Your task to perform on an android device: open a bookmark in the chrome app Image 0: 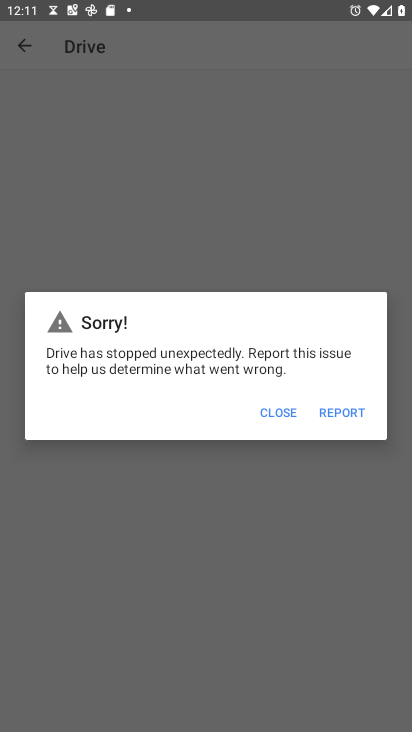
Step 0: press home button
Your task to perform on an android device: open a bookmark in the chrome app Image 1: 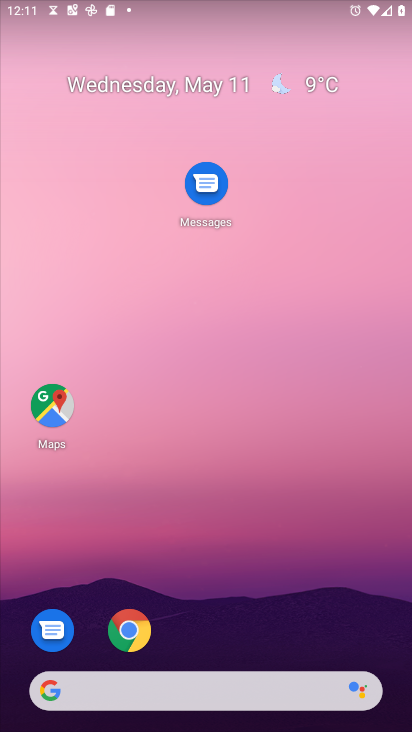
Step 1: click (131, 629)
Your task to perform on an android device: open a bookmark in the chrome app Image 2: 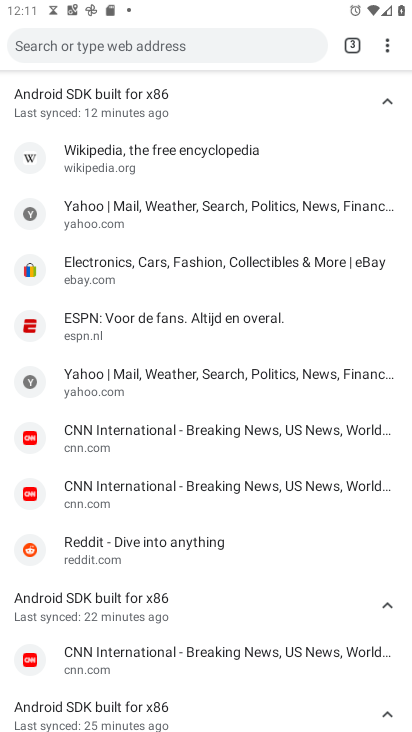
Step 2: click (389, 43)
Your task to perform on an android device: open a bookmark in the chrome app Image 3: 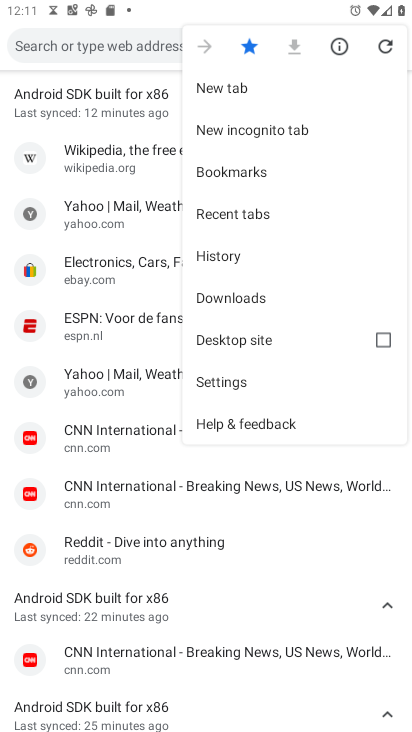
Step 3: click (243, 170)
Your task to perform on an android device: open a bookmark in the chrome app Image 4: 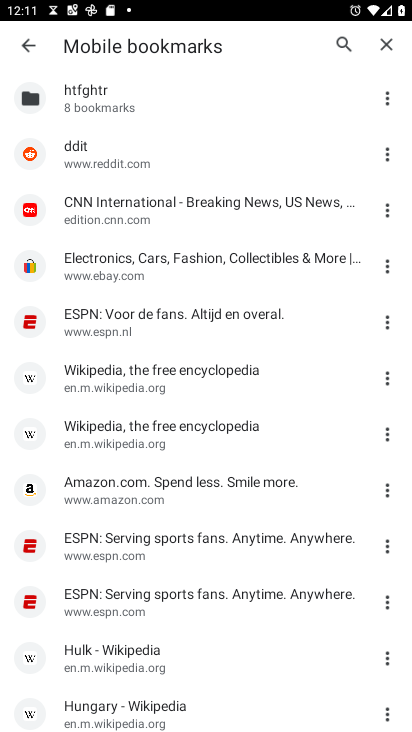
Step 4: drag from (310, 689) to (373, 45)
Your task to perform on an android device: open a bookmark in the chrome app Image 5: 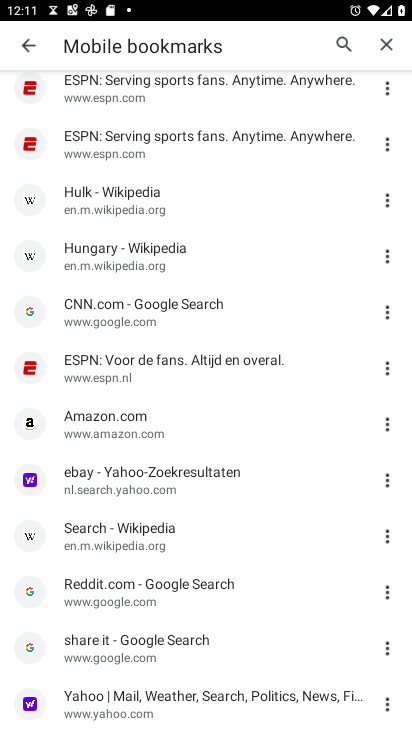
Step 5: drag from (193, 606) to (285, 86)
Your task to perform on an android device: open a bookmark in the chrome app Image 6: 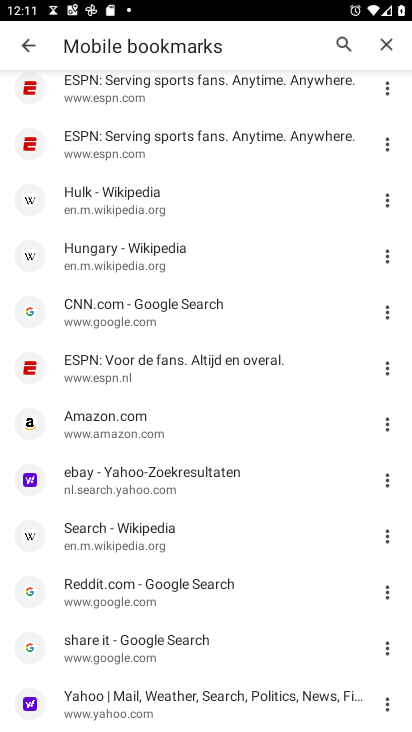
Step 6: drag from (283, 264) to (214, 721)
Your task to perform on an android device: open a bookmark in the chrome app Image 7: 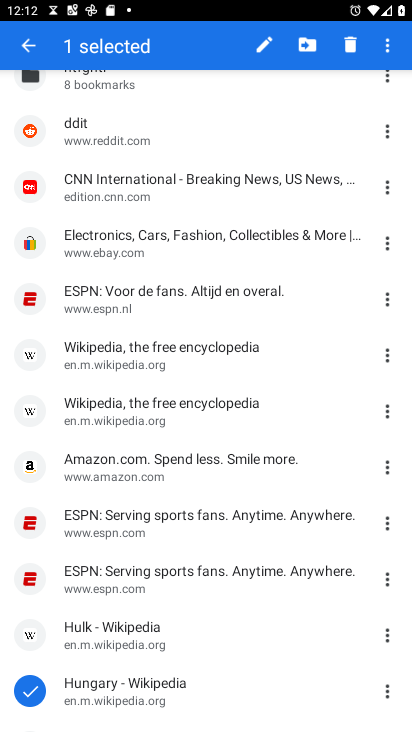
Step 7: click (19, 39)
Your task to perform on an android device: open a bookmark in the chrome app Image 8: 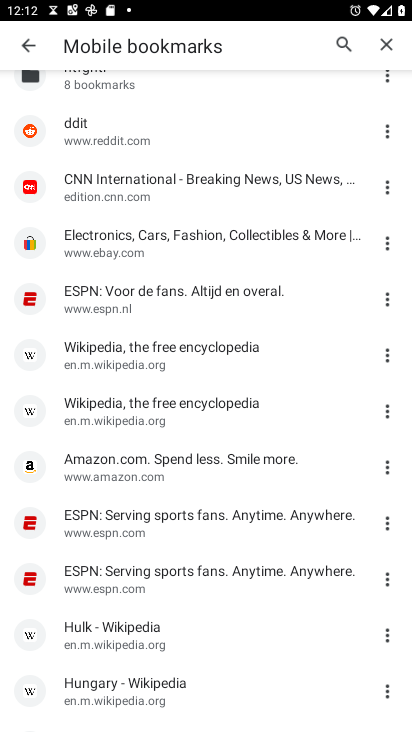
Step 8: task complete